Your task to perform on an android device: Open Google Maps Image 0: 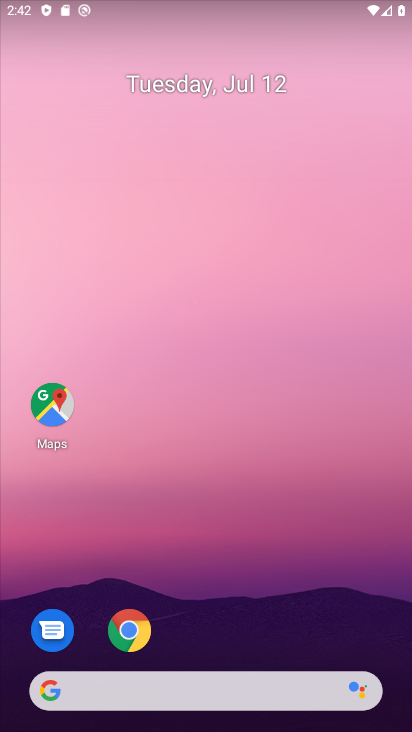
Step 0: drag from (238, 688) to (244, 168)
Your task to perform on an android device: Open Google Maps Image 1: 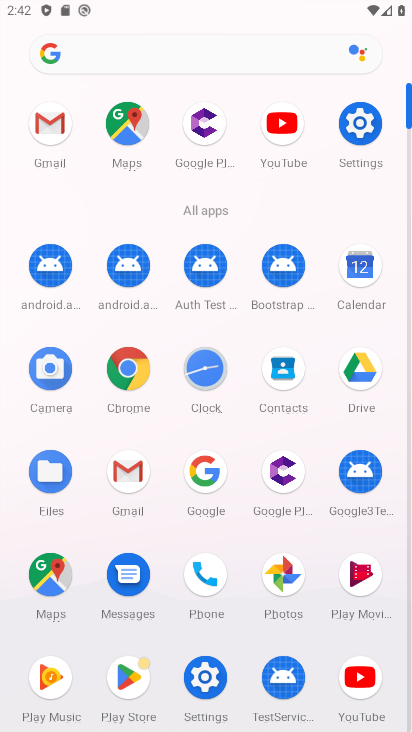
Step 1: click (45, 586)
Your task to perform on an android device: Open Google Maps Image 2: 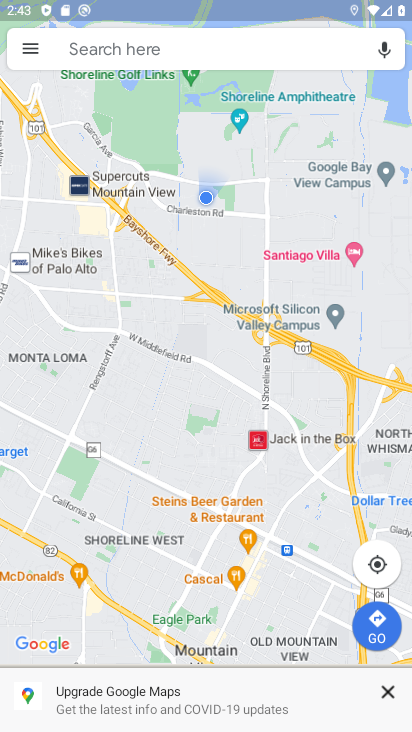
Step 2: task complete